Your task to perform on an android device: find snoozed emails in the gmail app Image 0: 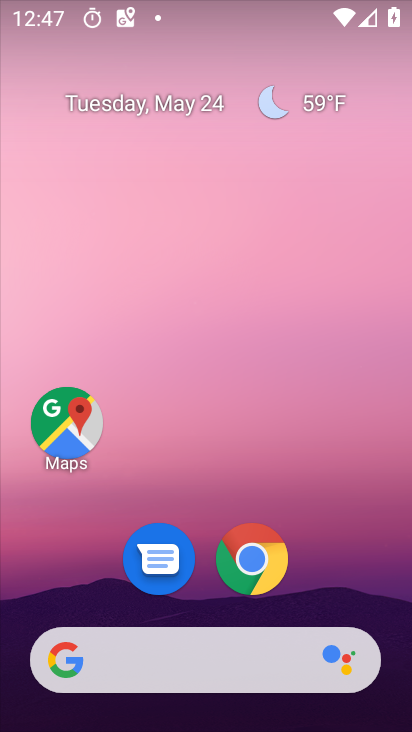
Step 0: drag from (387, 661) to (332, 123)
Your task to perform on an android device: find snoozed emails in the gmail app Image 1: 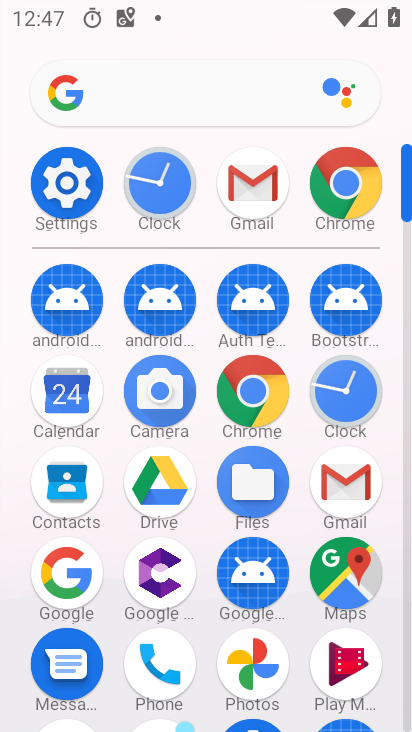
Step 1: click (343, 467)
Your task to perform on an android device: find snoozed emails in the gmail app Image 2: 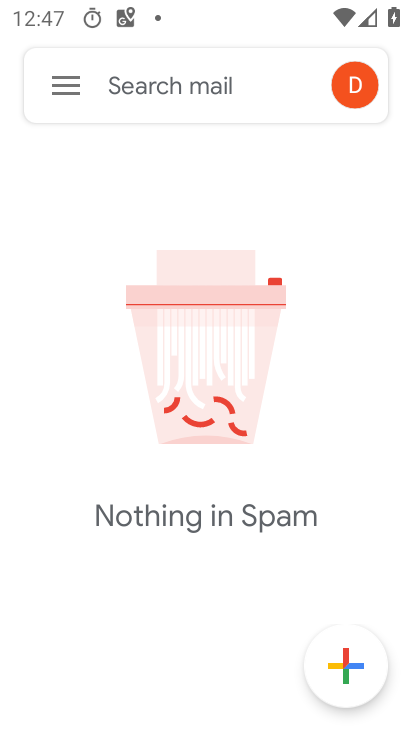
Step 2: click (53, 83)
Your task to perform on an android device: find snoozed emails in the gmail app Image 3: 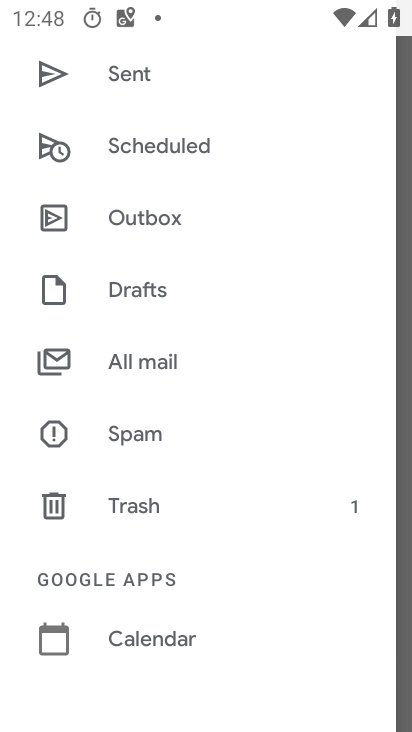
Step 3: drag from (214, 108) to (279, 594)
Your task to perform on an android device: find snoozed emails in the gmail app Image 4: 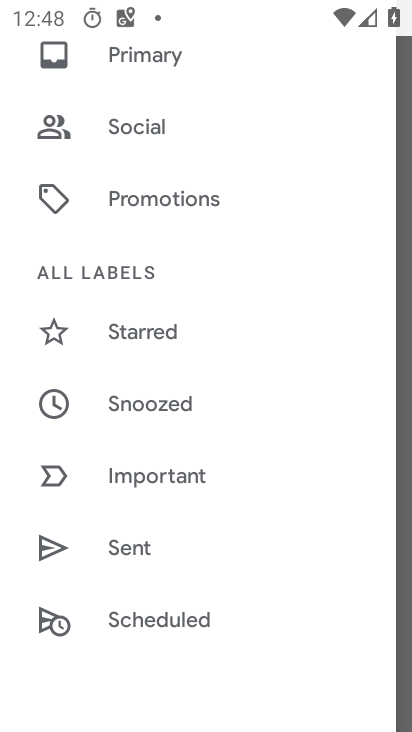
Step 4: click (150, 401)
Your task to perform on an android device: find snoozed emails in the gmail app Image 5: 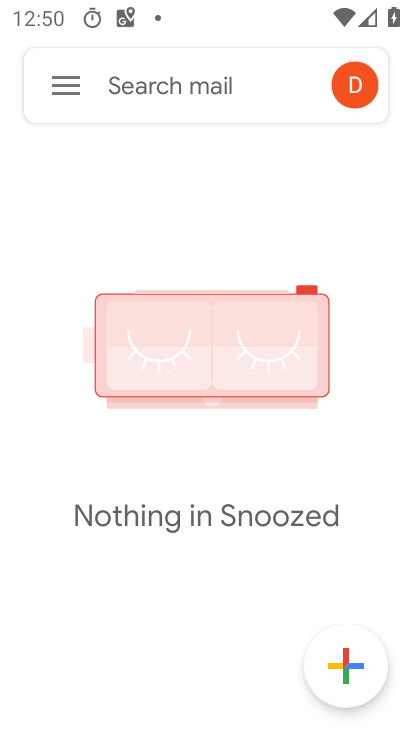
Step 5: task complete